Your task to perform on an android device: change the clock style Image 0: 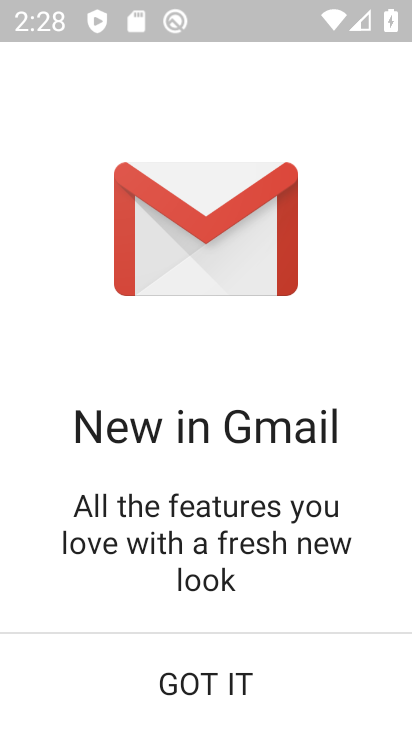
Step 0: press back button
Your task to perform on an android device: change the clock style Image 1: 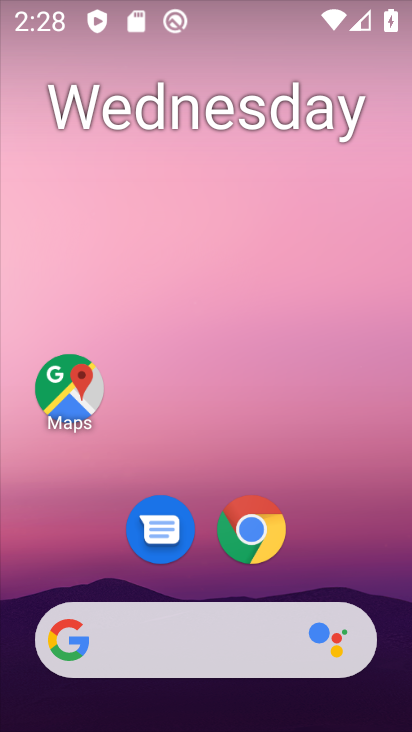
Step 1: drag from (193, 414) to (181, 146)
Your task to perform on an android device: change the clock style Image 2: 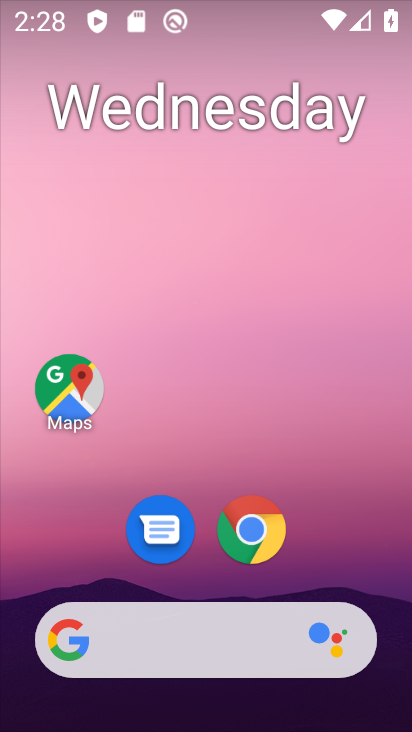
Step 2: drag from (188, 586) to (188, 115)
Your task to perform on an android device: change the clock style Image 3: 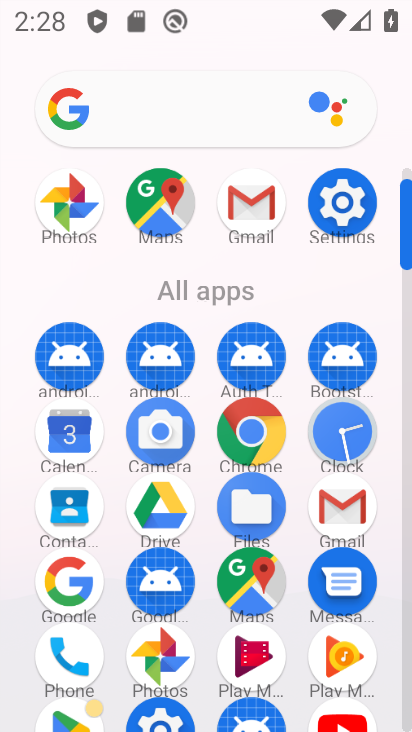
Step 3: click (338, 439)
Your task to perform on an android device: change the clock style Image 4: 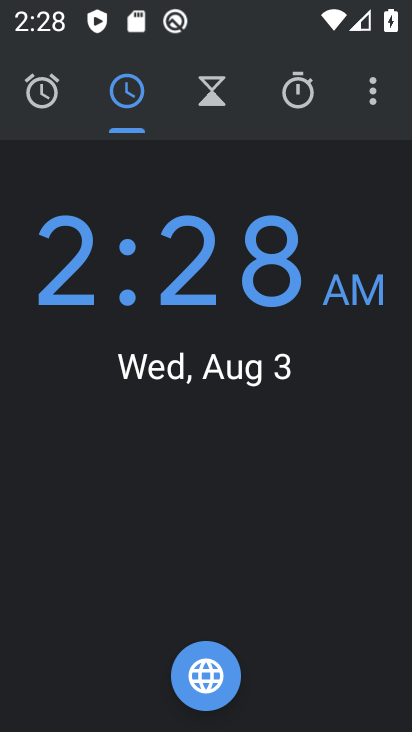
Step 4: click (375, 98)
Your task to perform on an android device: change the clock style Image 5: 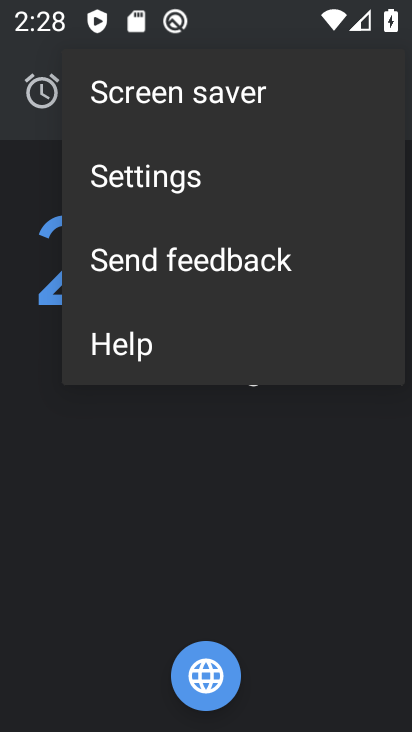
Step 5: click (129, 170)
Your task to perform on an android device: change the clock style Image 6: 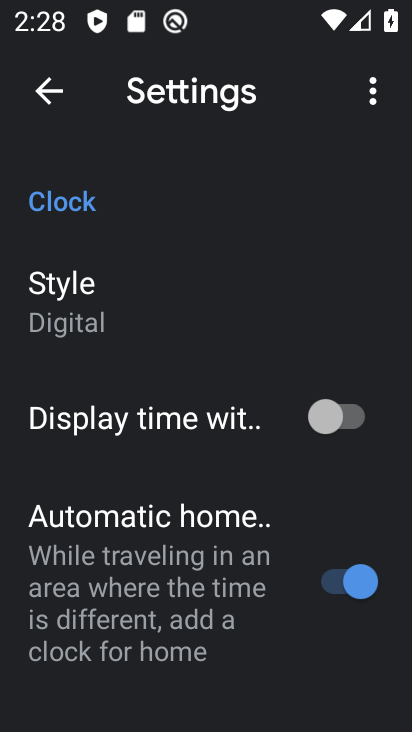
Step 6: click (82, 304)
Your task to perform on an android device: change the clock style Image 7: 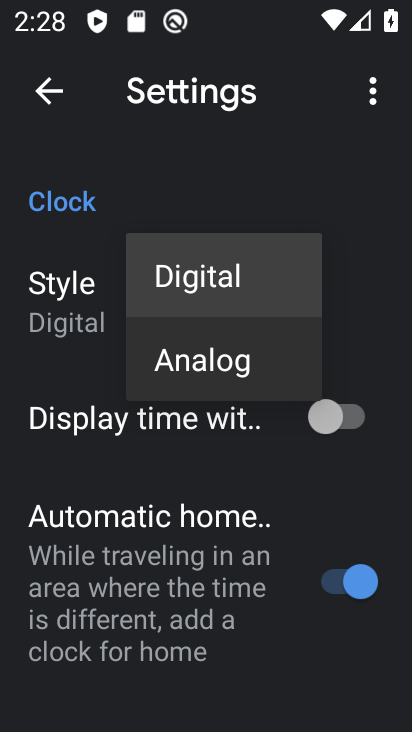
Step 7: click (184, 259)
Your task to perform on an android device: change the clock style Image 8: 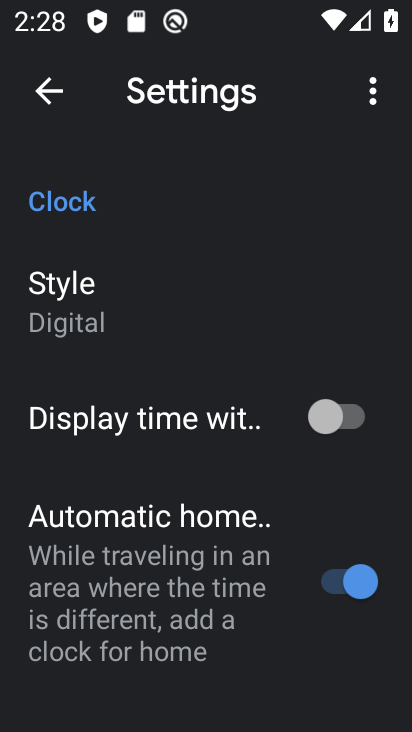
Step 8: task complete